Your task to perform on an android device: make emails show in primary in the gmail app Image 0: 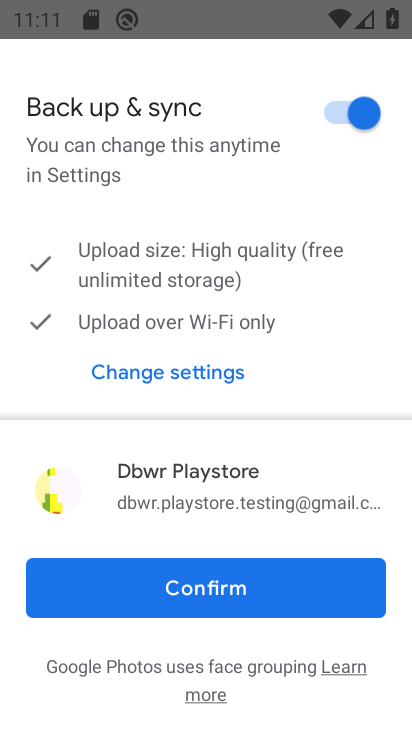
Step 0: press home button
Your task to perform on an android device: make emails show in primary in the gmail app Image 1: 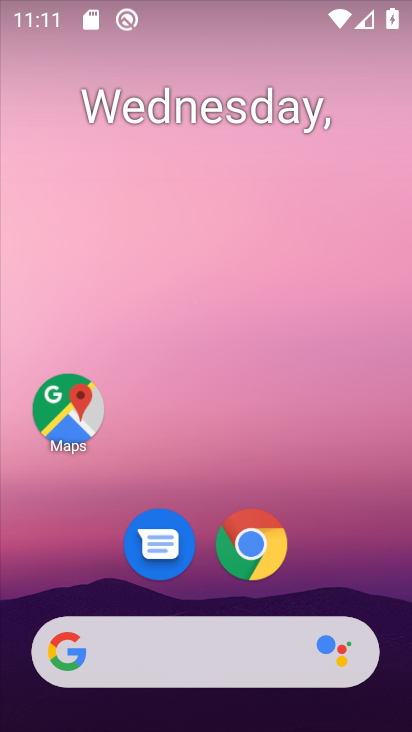
Step 1: drag from (369, 557) to (308, 42)
Your task to perform on an android device: make emails show in primary in the gmail app Image 2: 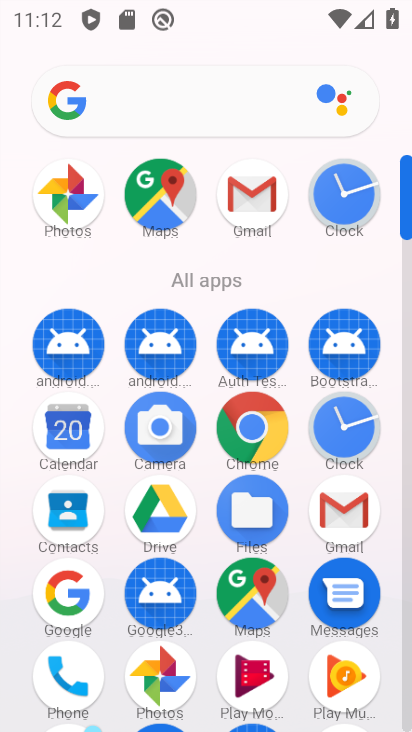
Step 2: click (254, 203)
Your task to perform on an android device: make emails show in primary in the gmail app Image 3: 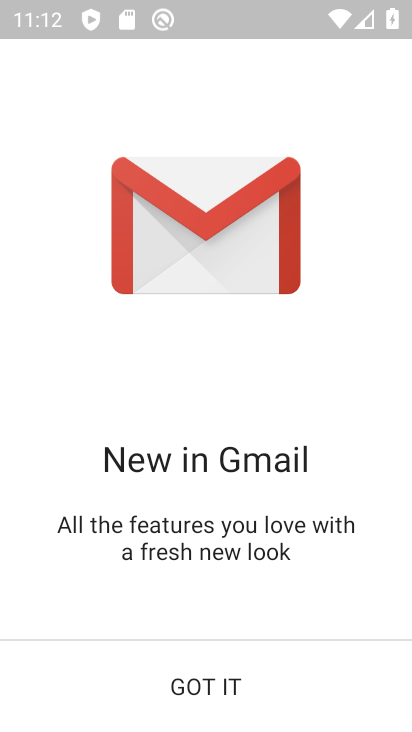
Step 3: click (229, 665)
Your task to perform on an android device: make emails show in primary in the gmail app Image 4: 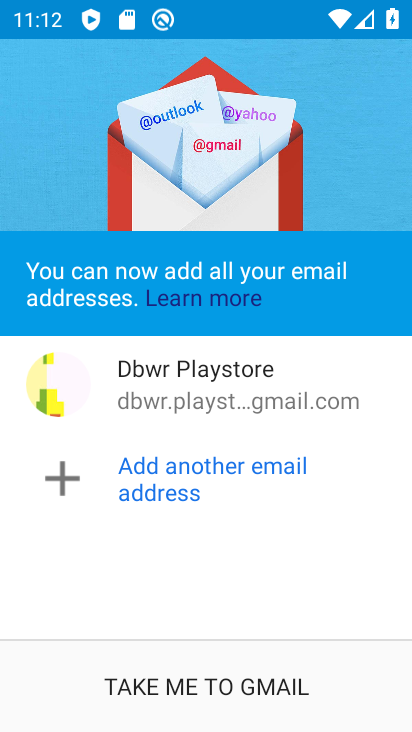
Step 4: click (246, 703)
Your task to perform on an android device: make emails show in primary in the gmail app Image 5: 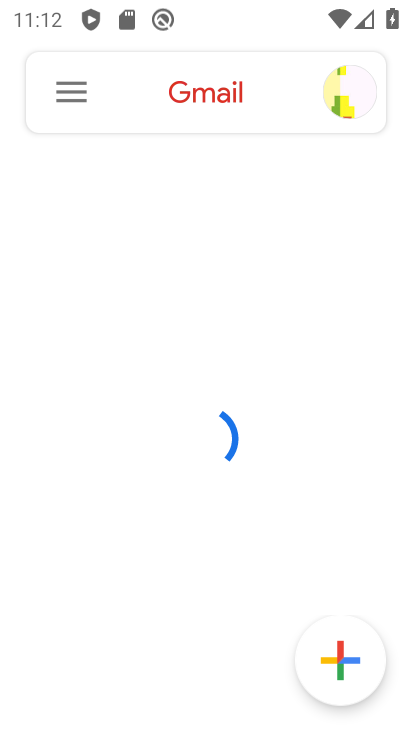
Step 5: click (71, 97)
Your task to perform on an android device: make emails show in primary in the gmail app Image 6: 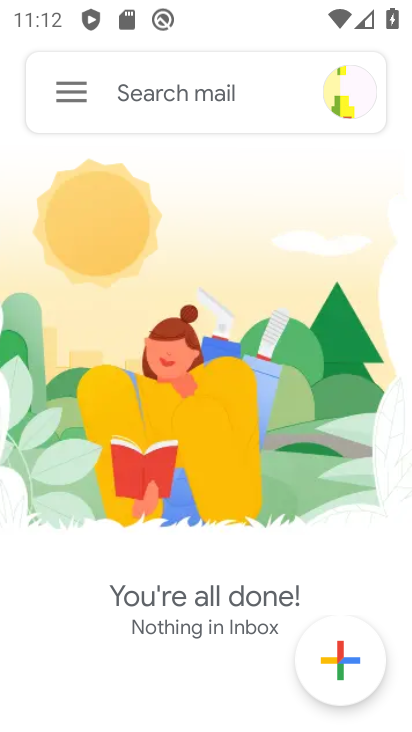
Step 6: click (79, 90)
Your task to perform on an android device: make emails show in primary in the gmail app Image 7: 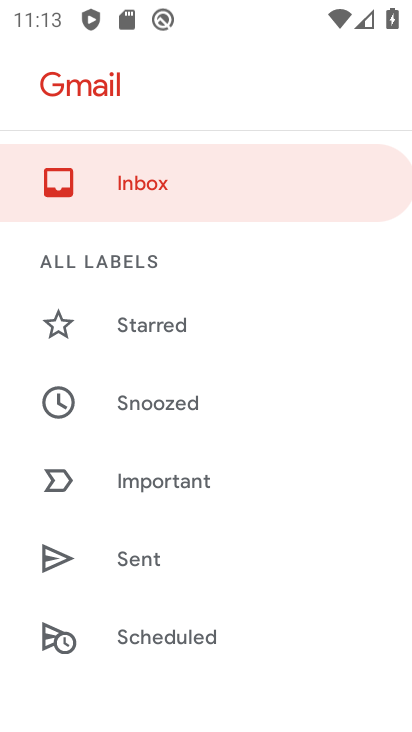
Step 7: task complete